Your task to perform on an android device: Go to Reddit.com Image 0: 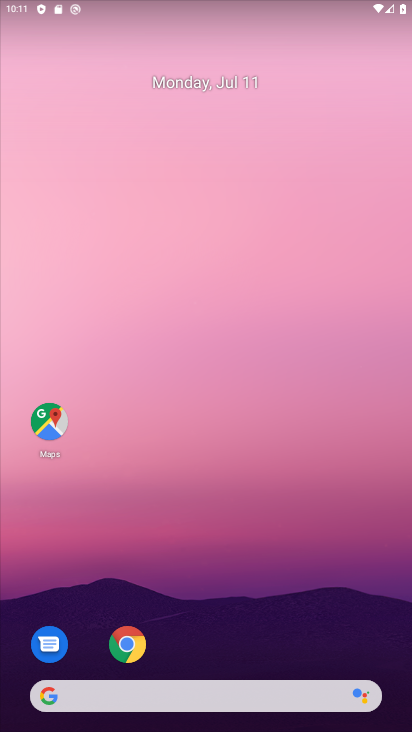
Step 0: press home button
Your task to perform on an android device: Go to Reddit.com Image 1: 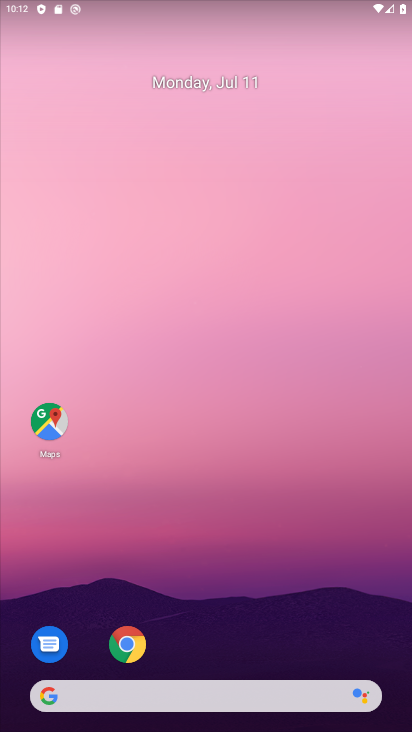
Step 1: click (142, 650)
Your task to perform on an android device: Go to Reddit.com Image 2: 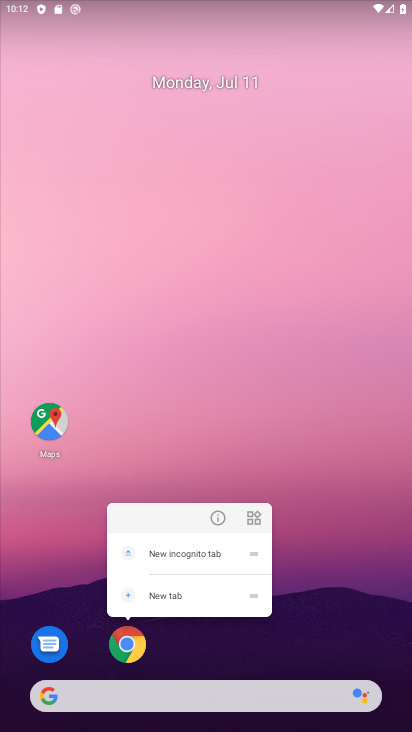
Step 2: click (136, 653)
Your task to perform on an android device: Go to Reddit.com Image 3: 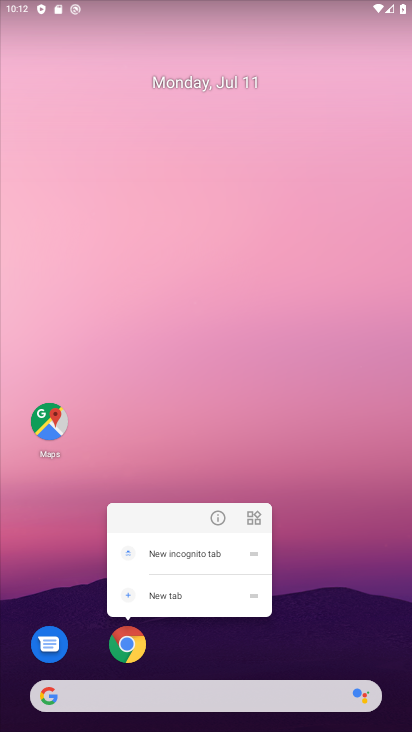
Step 3: click (130, 649)
Your task to perform on an android device: Go to Reddit.com Image 4: 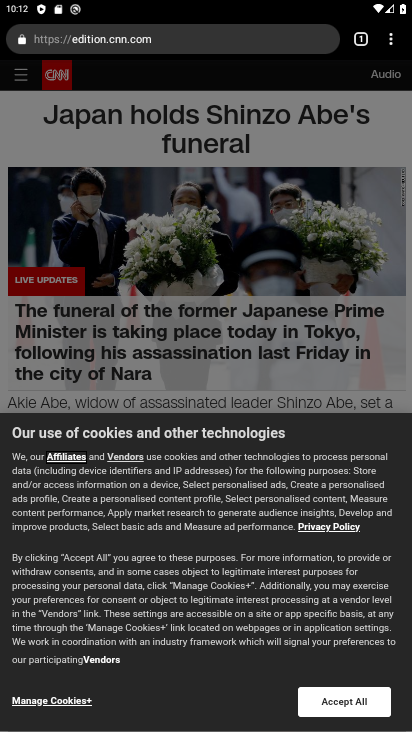
Step 4: click (211, 44)
Your task to perform on an android device: Go to Reddit.com Image 5: 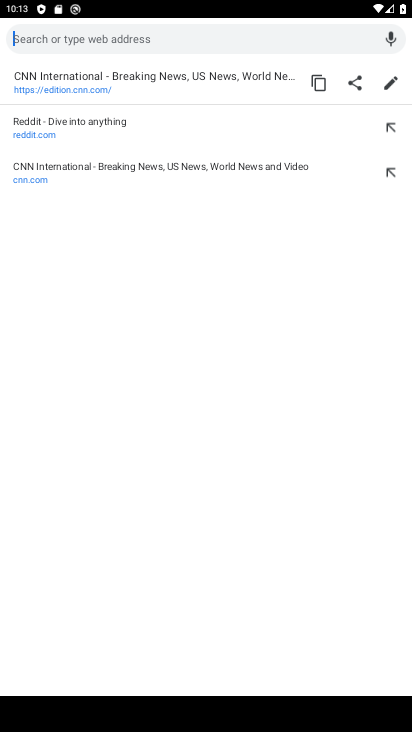
Step 5: type "Reddit.com"
Your task to perform on an android device: Go to Reddit.com Image 6: 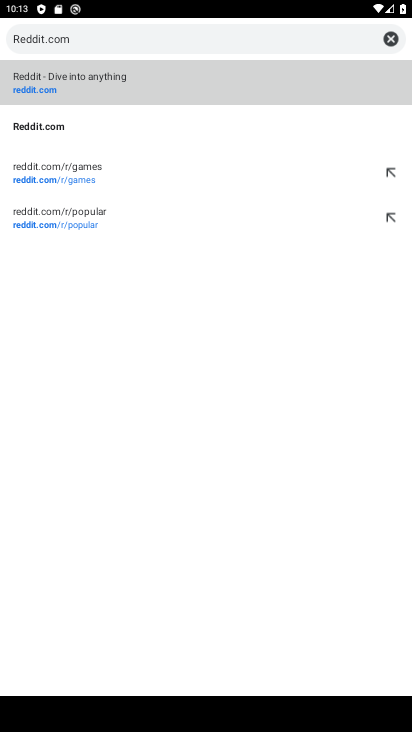
Step 6: click (181, 73)
Your task to perform on an android device: Go to Reddit.com Image 7: 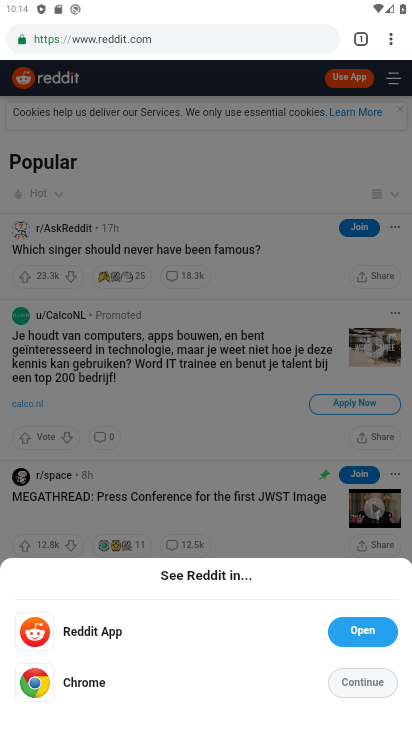
Step 7: task complete